Your task to perform on an android device: Open eBay Image 0: 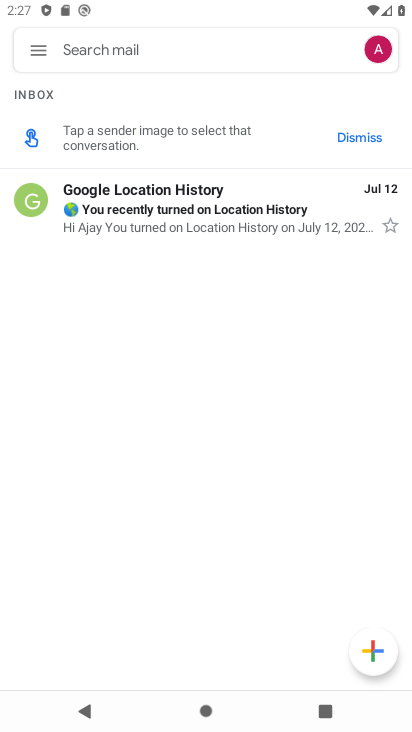
Step 0: press home button
Your task to perform on an android device: Open eBay Image 1: 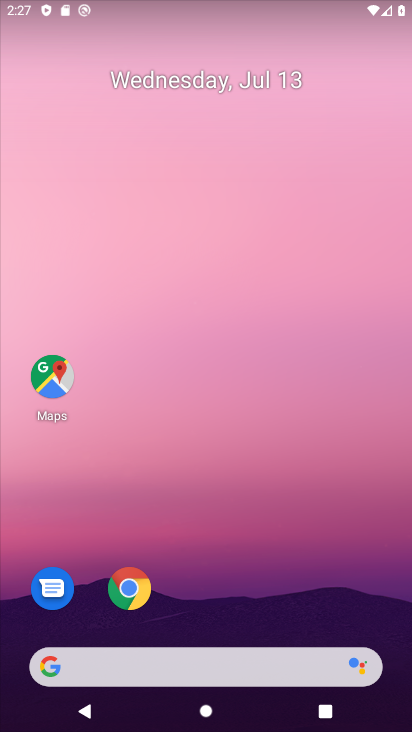
Step 1: click (125, 599)
Your task to perform on an android device: Open eBay Image 2: 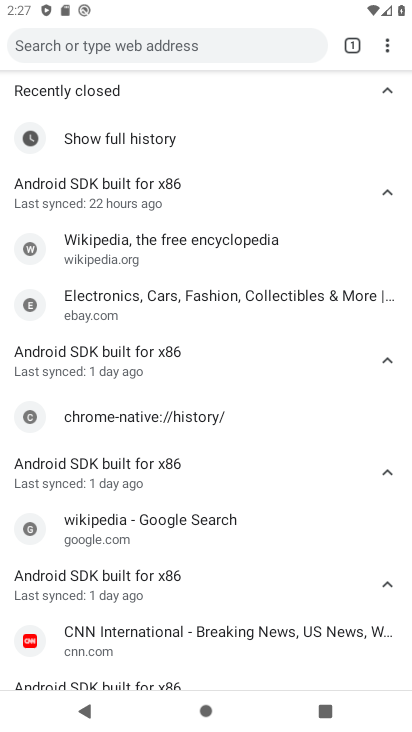
Step 2: click (134, 44)
Your task to perform on an android device: Open eBay Image 3: 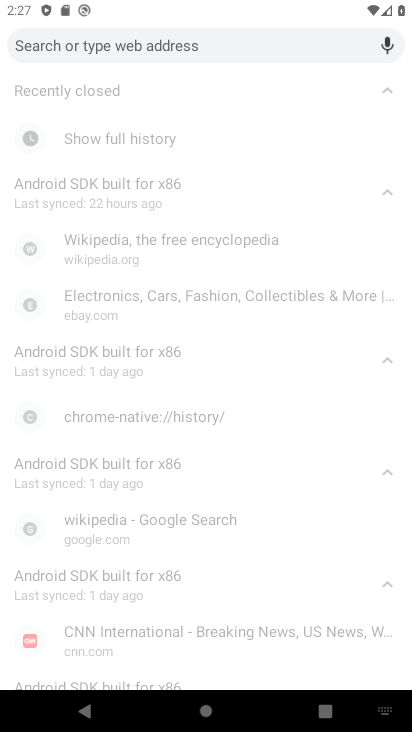
Step 3: type "ebay"
Your task to perform on an android device: Open eBay Image 4: 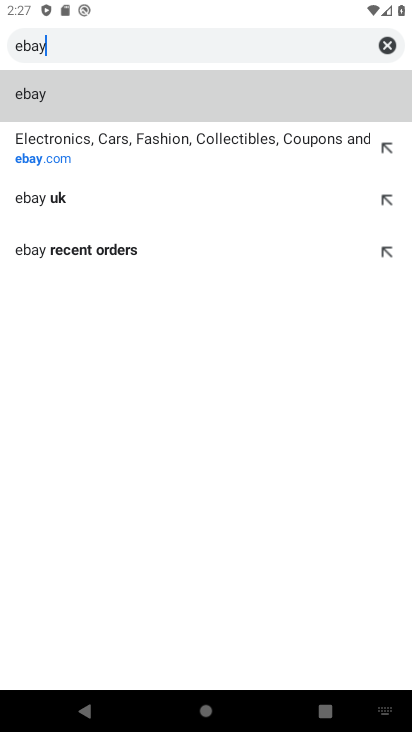
Step 4: click (73, 92)
Your task to perform on an android device: Open eBay Image 5: 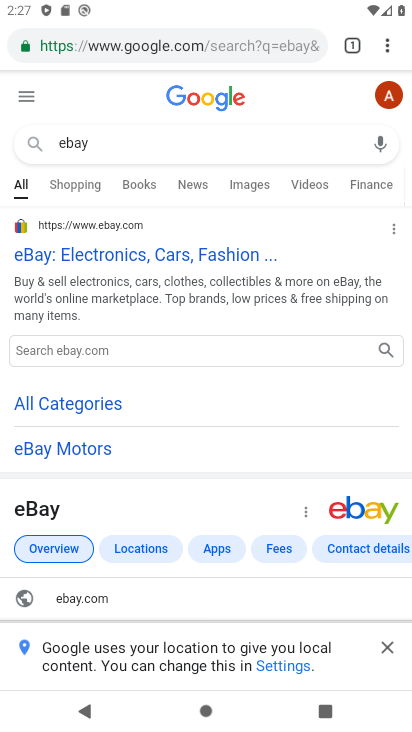
Step 5: click (120, 249)
Your task to perform on an android device: Open eBay Image 6: 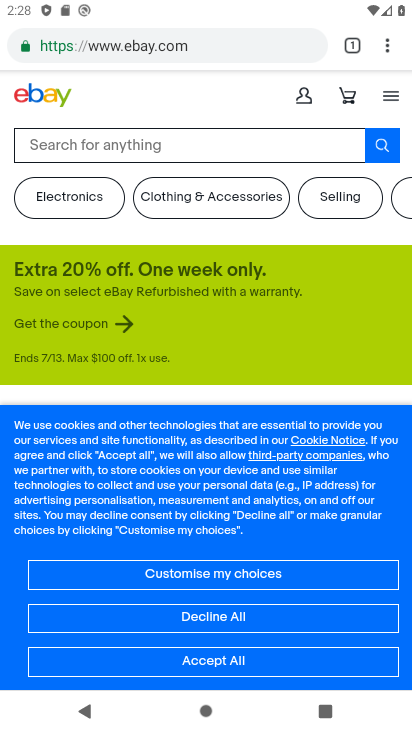
Step 6: task complete